Your task to perform on an android device: open app "Booking.com: Hotels and more" (install if not already installed), go to login, and select forgot password Image 0: 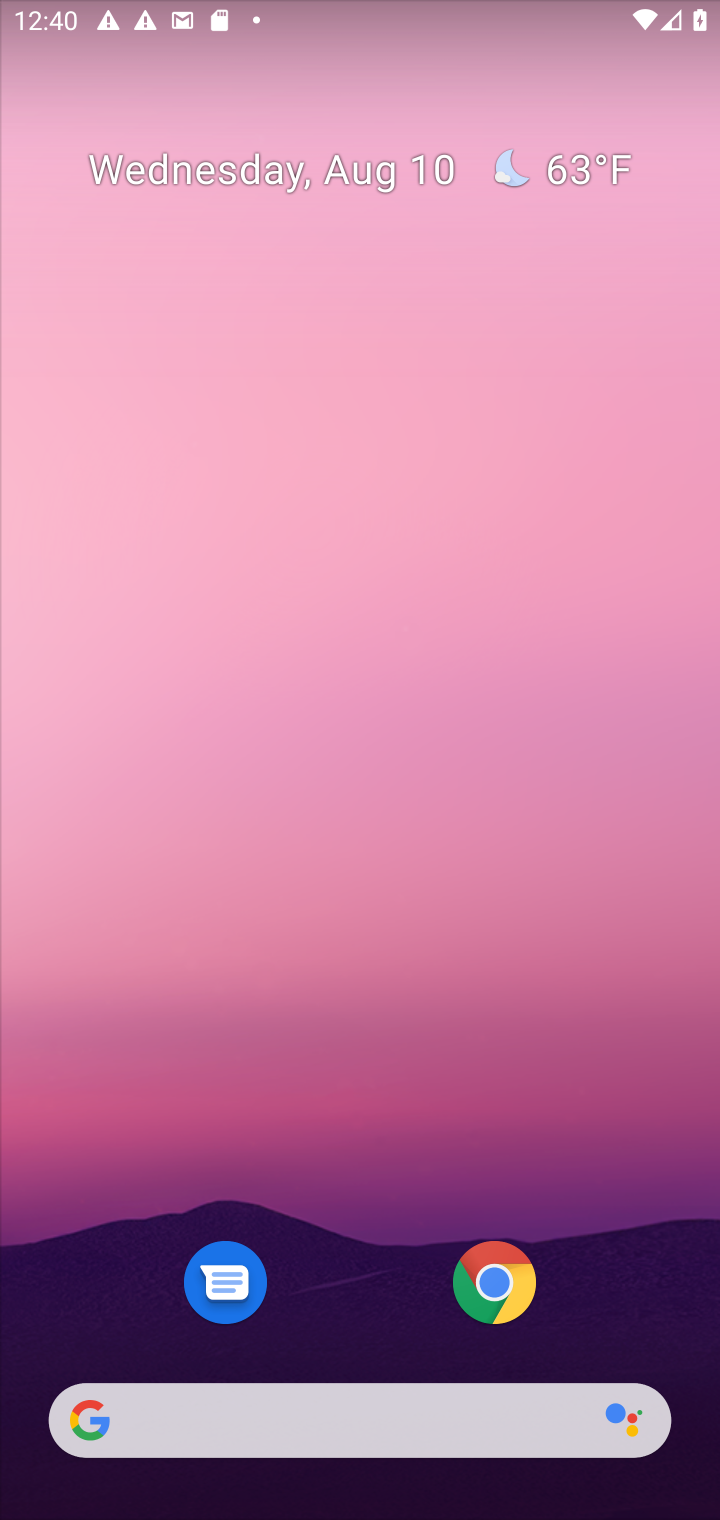
Step 0: press home button
Your task to perform on an android device: open app "Booking.com: Hotels and more" (install if not already installed), go to login, and select forgot password Image 1: 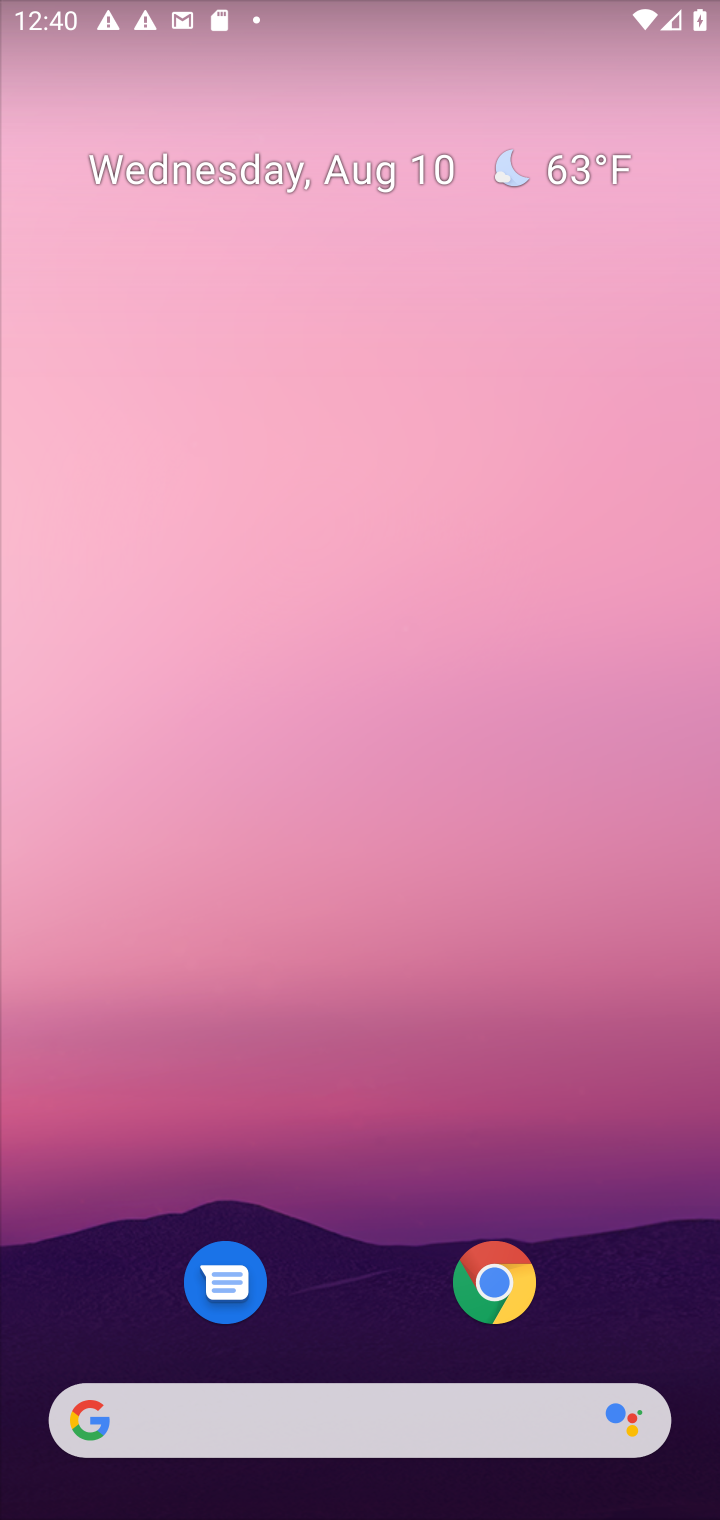
Step 1: drag from (300, 1345) to (244, 558)
Your task to perform on an android device: open app "Booking.com: Hotels and more" (install if not already installed), go to login, and select forgot password Image 2: 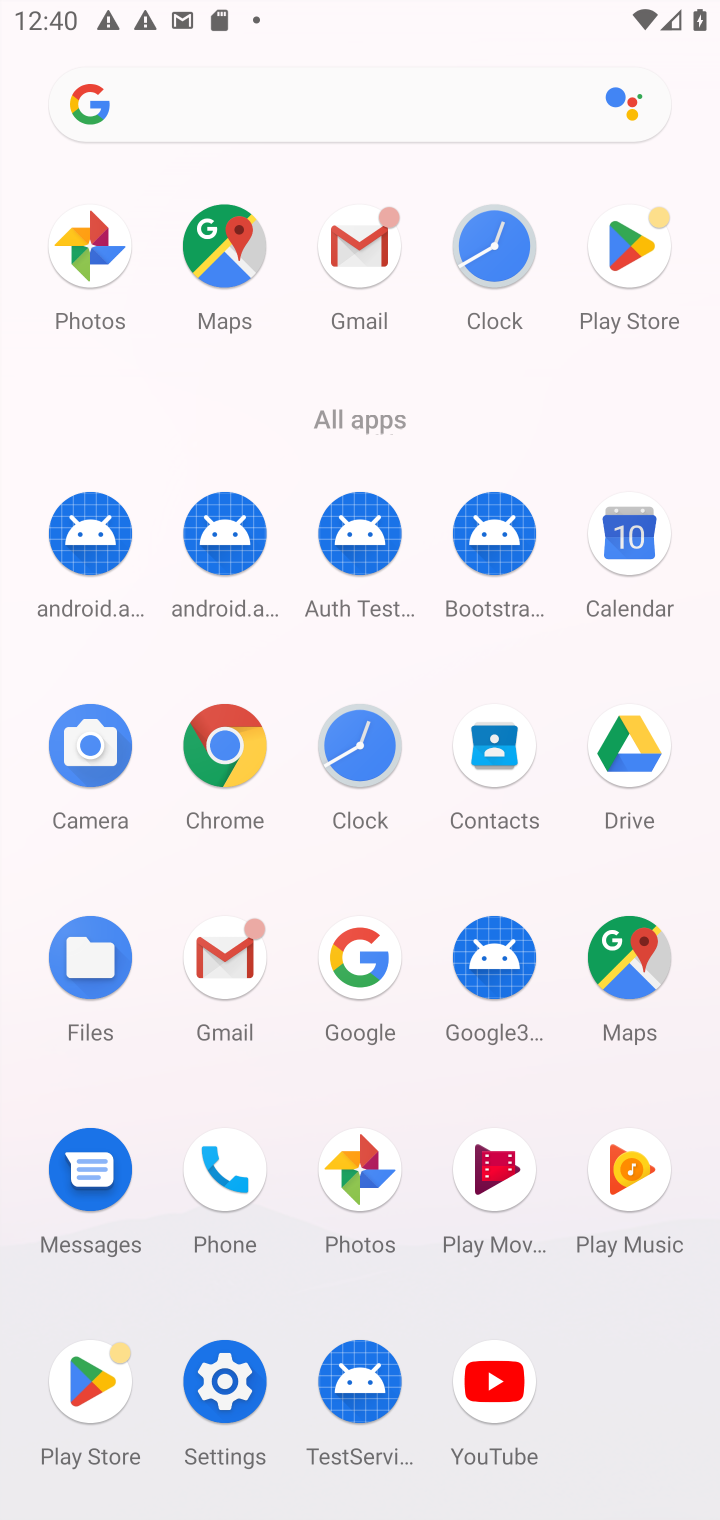
Step 2: click (95, 1397)
Your task to perform on an android device: open app "Booking.com: Hotels and more" (install if not already installed), go to login, and select forgot password Image 3: 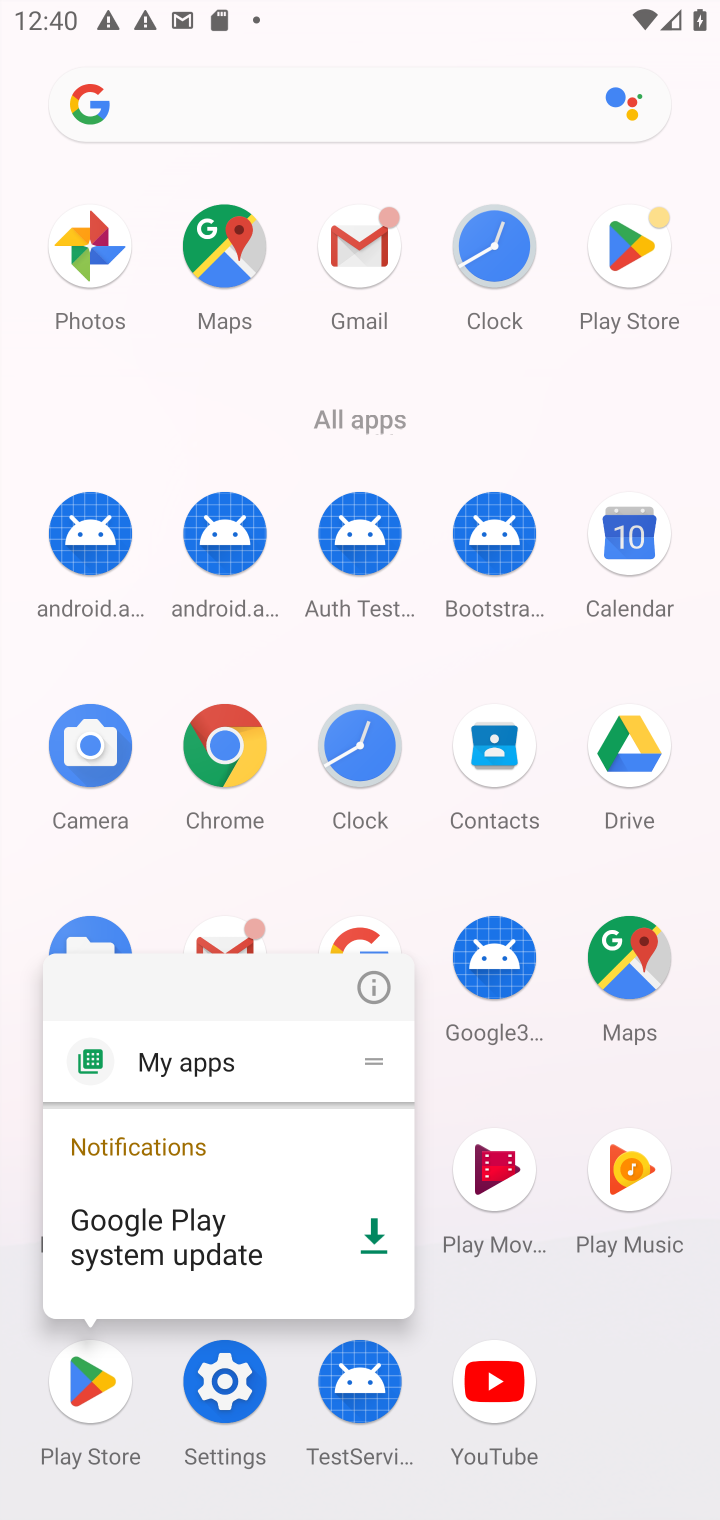
Step 3: click (95, 1397)
Your task to perform on an android device: open app "Booking.com: Hotels and more" (install if not already installed), go to login, and select forgot password Image 4: 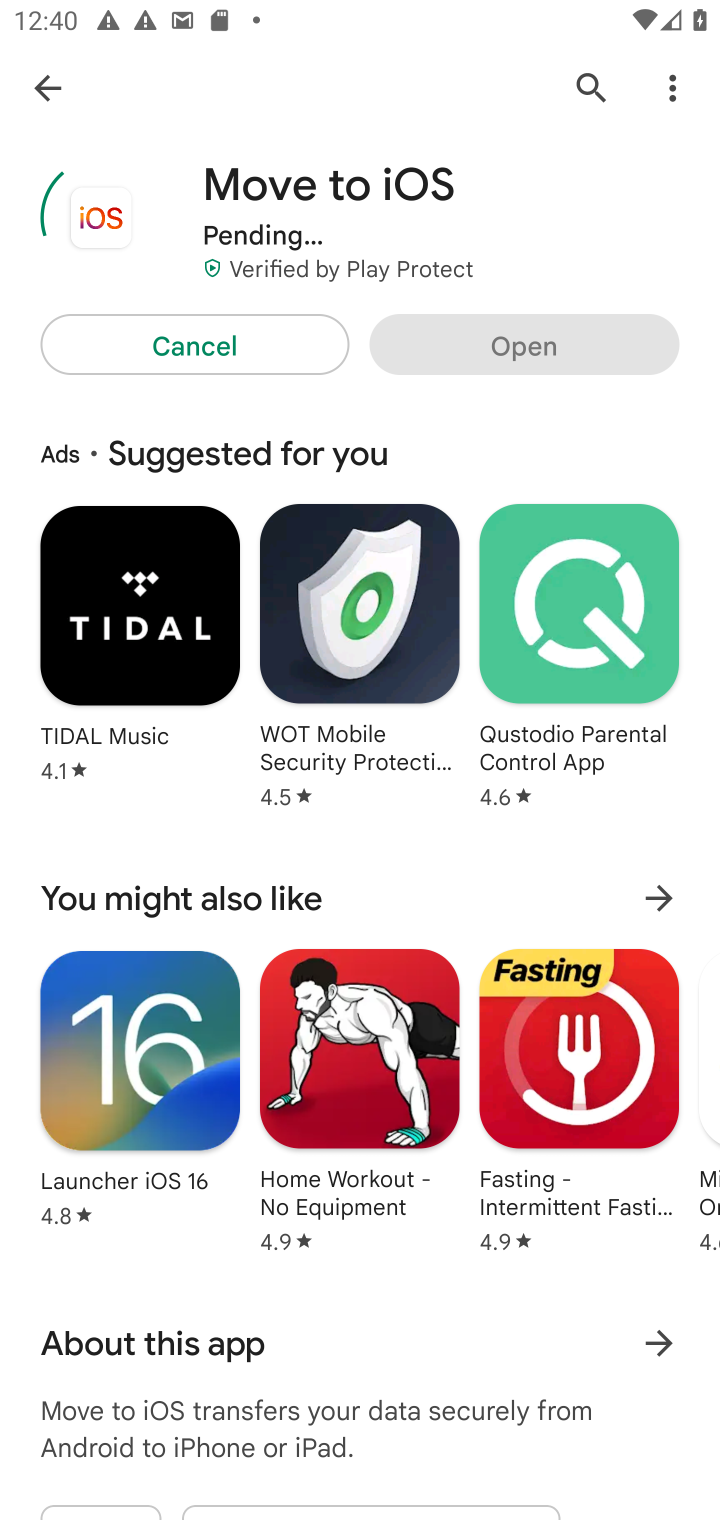
Step 4: click (24, 89)
Your task to perform on an android device: open app "Booking.com: Hotels and more" (install if not already installed), go to login, and select forgot password Image 5: 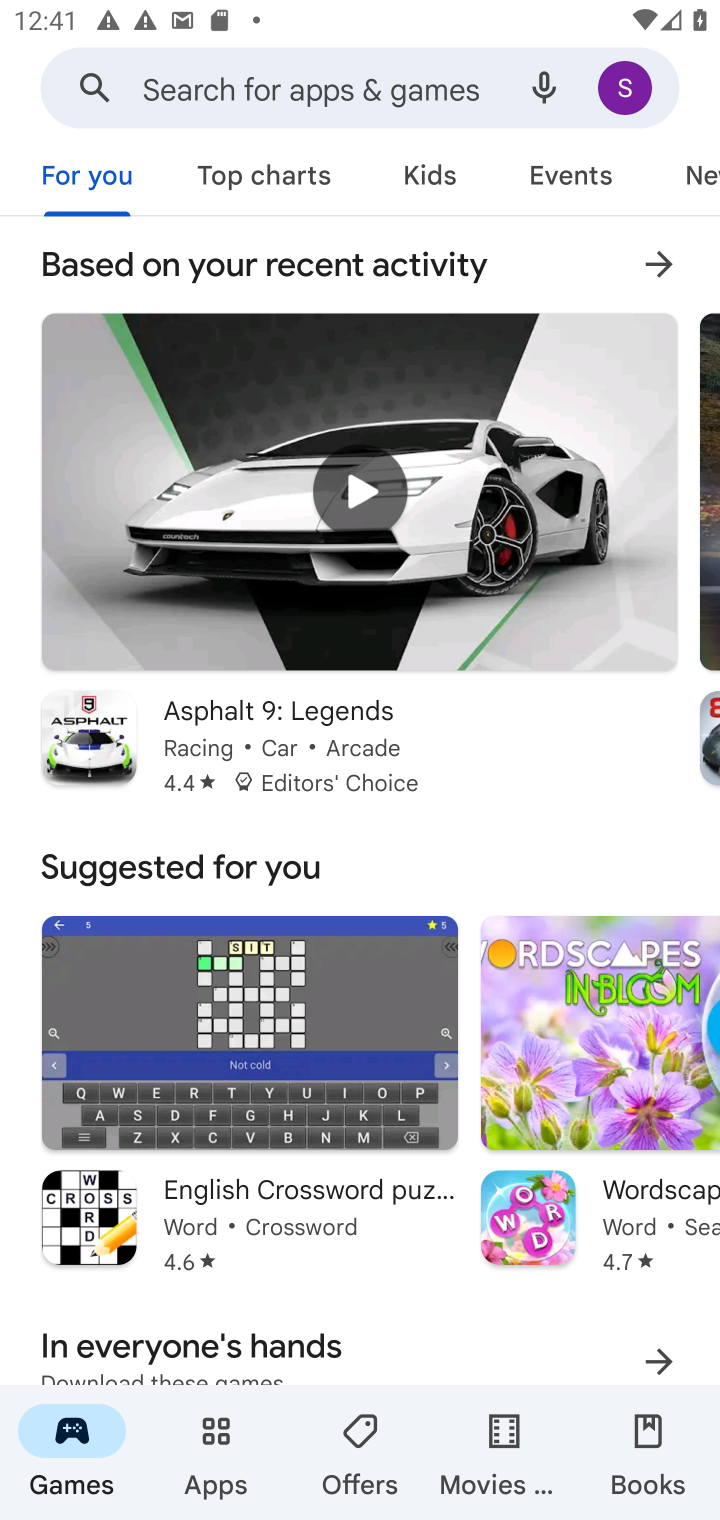
Step 5: click (377, 61)
Your task to perform on an android device: open app "Booking.com: Hotels and more" (install if not already installed), go to login, and select forgot password Image 6: 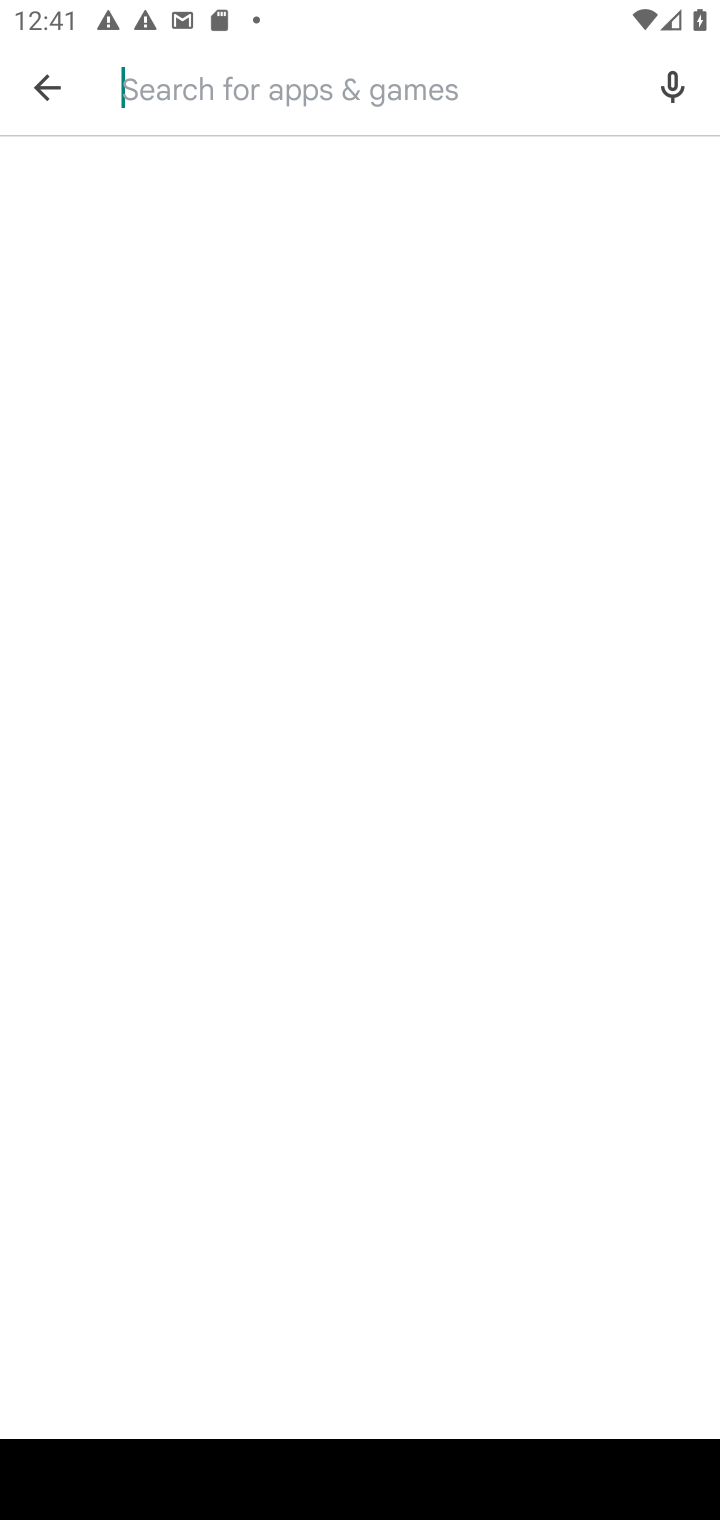
Step 6: type "Booking.com: Hotels and more "
Your task to perform on an android device: open app "Booking.com: Hotels and more" (install if not already installed), go to login, and select forgot password Image 7: 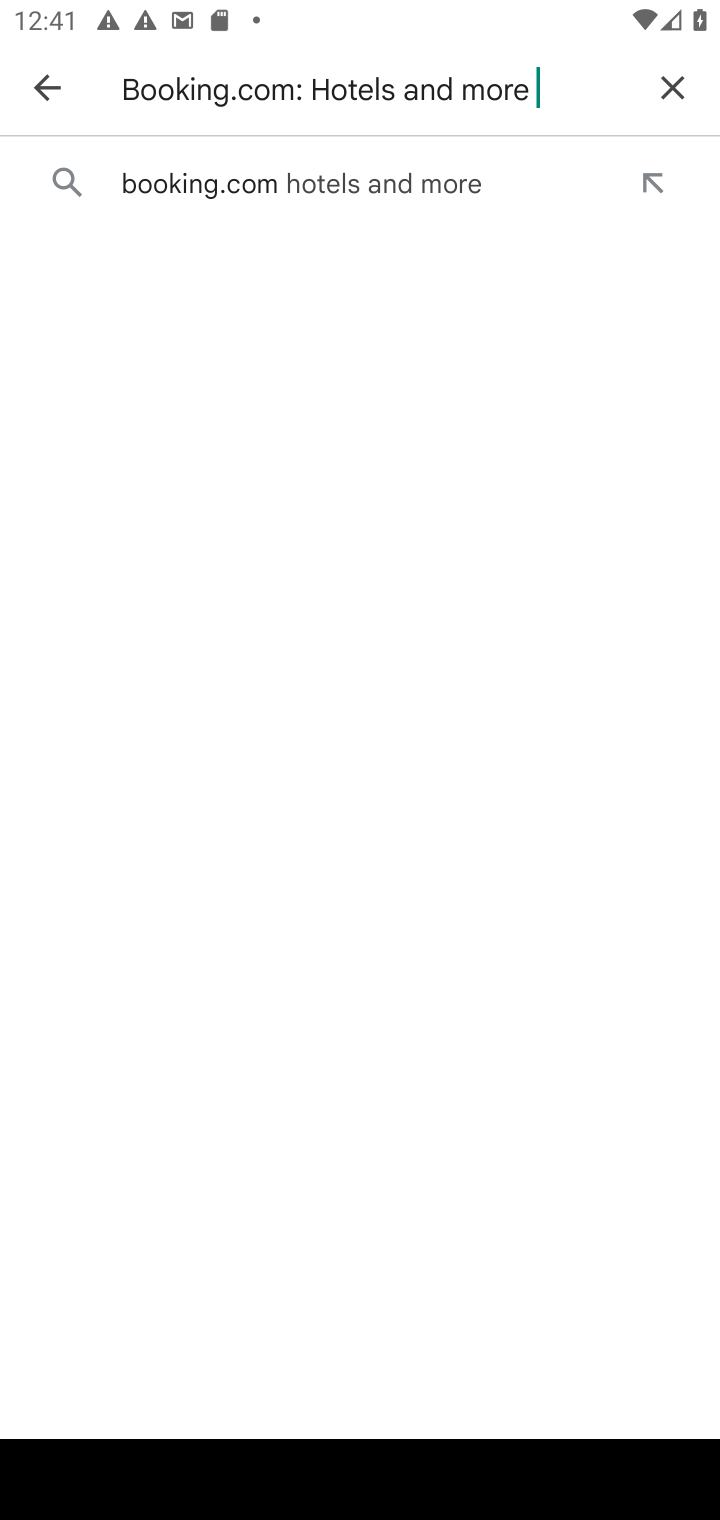
Step 7: click (293, 168)
Your task to perform on an android device: open app "Booking.com: Hotels and more" (install if not already installed), go to login, and select forgot password Image 8: 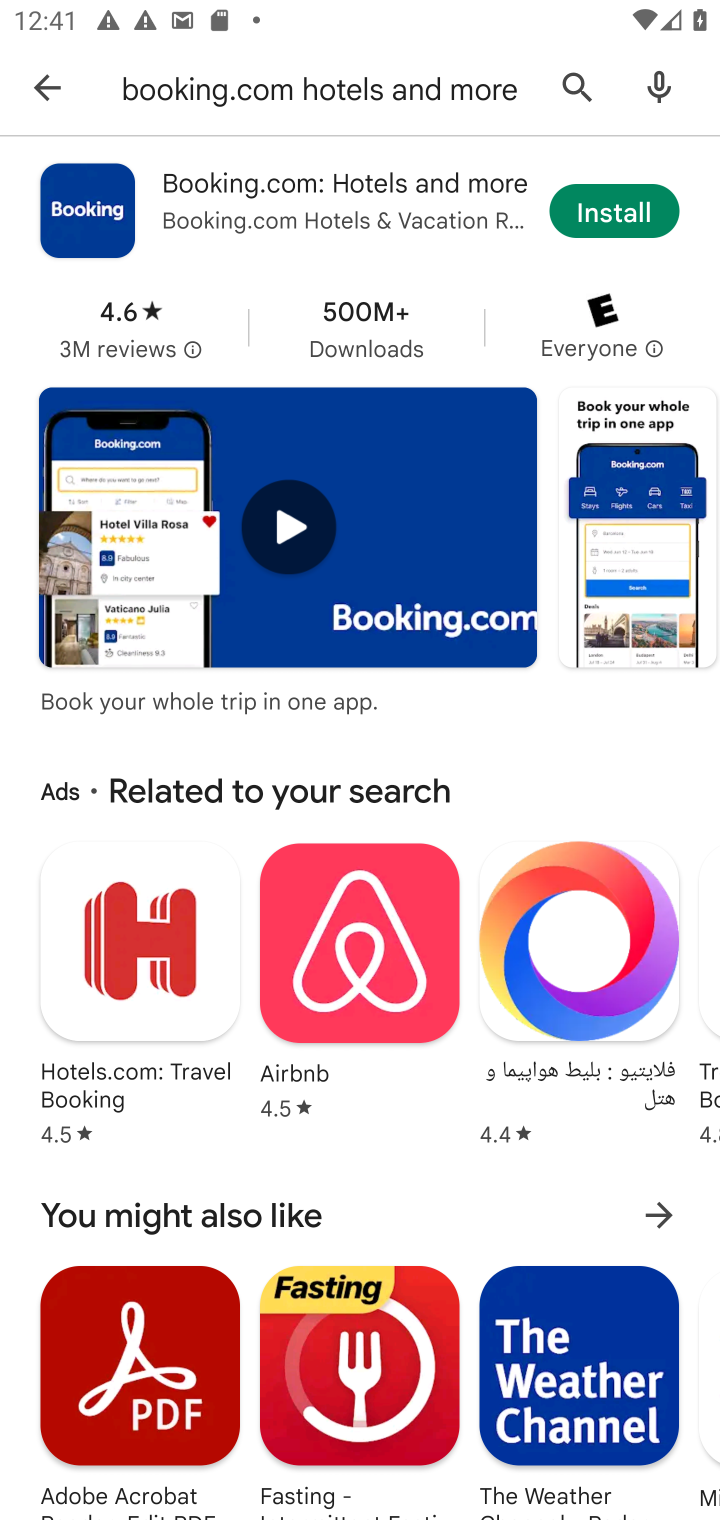
Step 8: click (625, 212)
Your task to perform on an android device: open app "Booking.com: Hotels and more" (install if not already installed), go to login, and select forgot password Image 9: 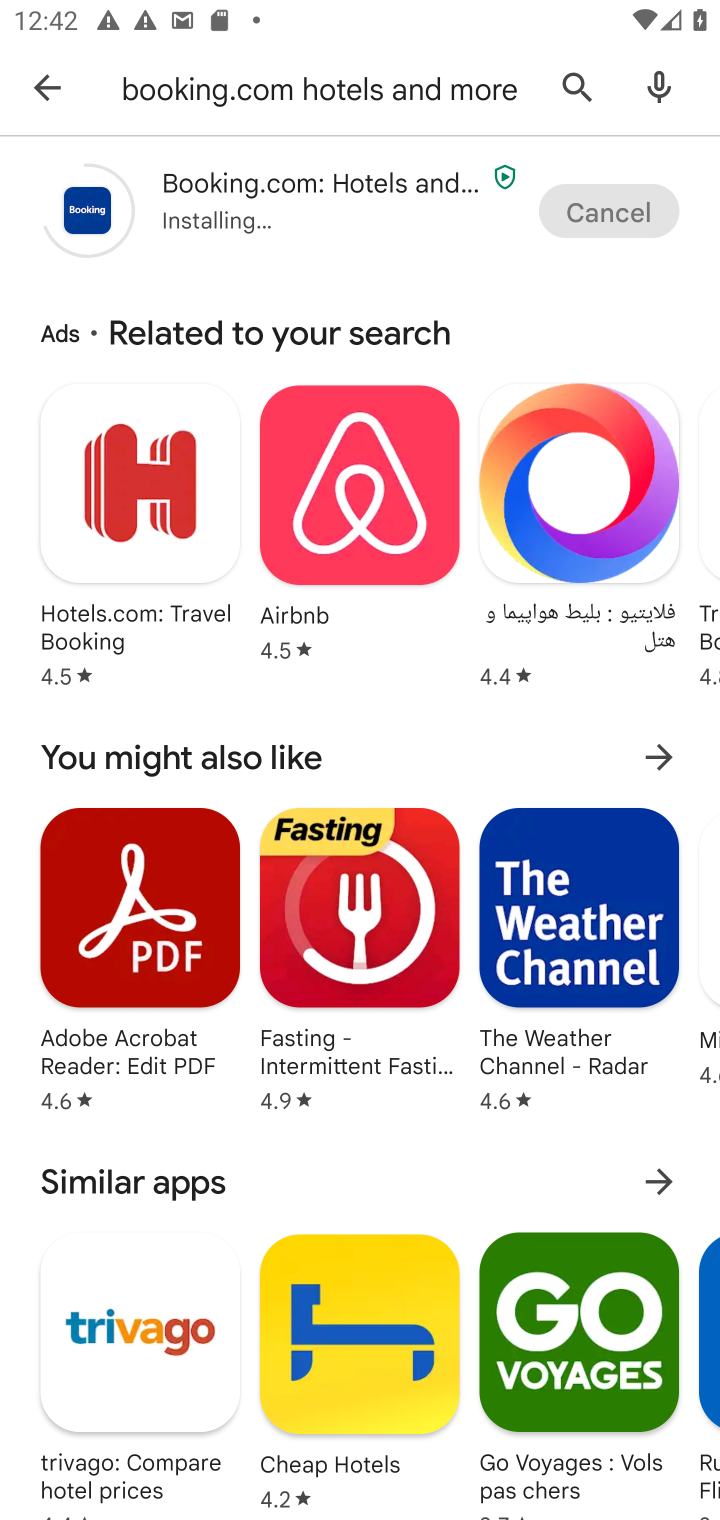
Step 9: task complete